Your task to perform on an android device: Open Reddit.com Image 0: 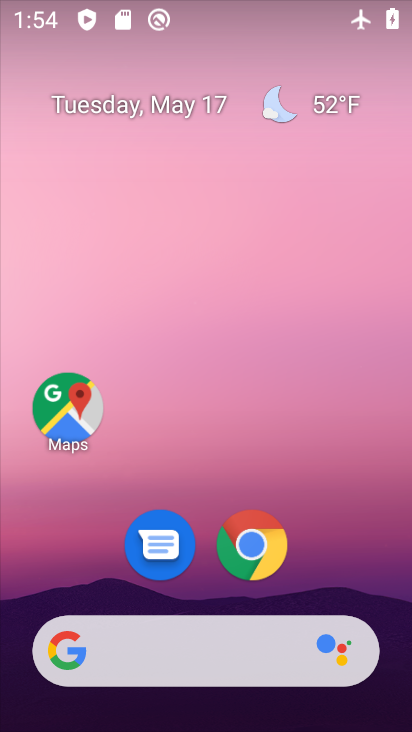
Step 0: drag from (358, 567) to (382, 118)
Your task to perform on an android device: Open Reddit.com Image 1: 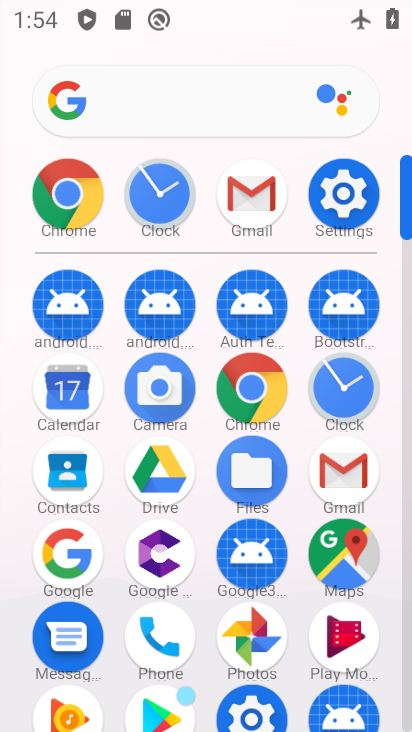
Step 1: click (273, 399)
Your task to perform on an android device: Open Reddit.com Image 2: 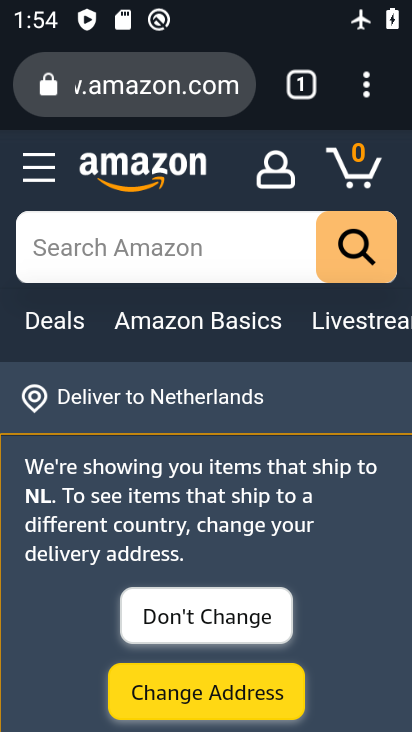
Step 2: click (190, 100)
Your task to perform on an android device: Open Reddit.com Image 3: 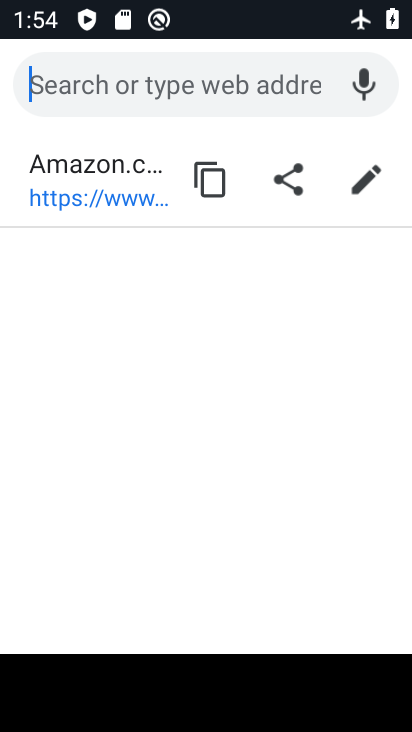
Step 3: type "reddit"
Your task to perform on an android device: Open Reddit.com Image 4: 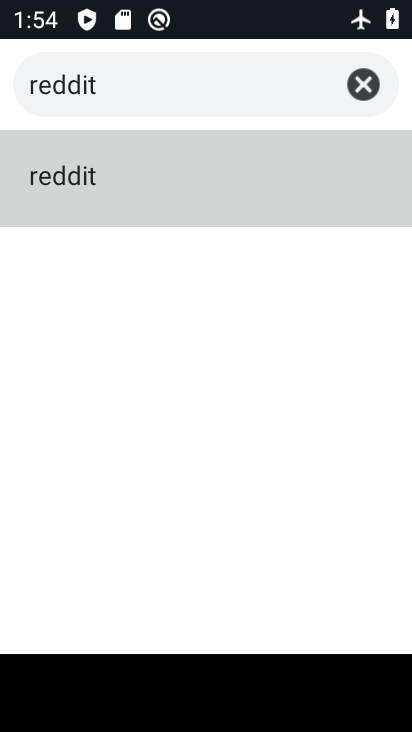
Step 4: click (99, 165)
Your task to perform on an android device: Open Reddit.com Image 5: 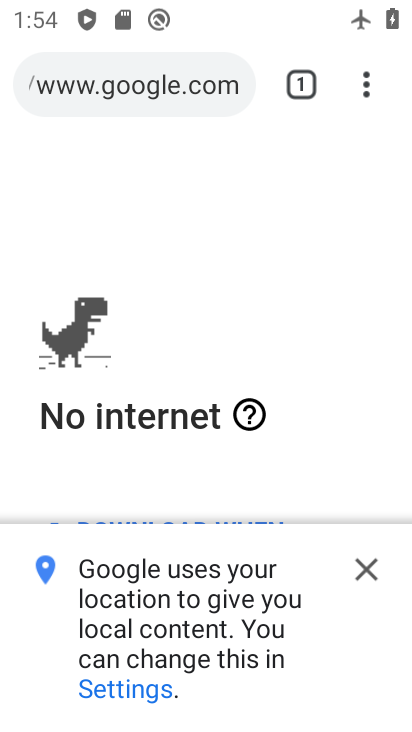
Step 5: task complete